Your task to perform on an android device: open sync settings in chrome Image 0: 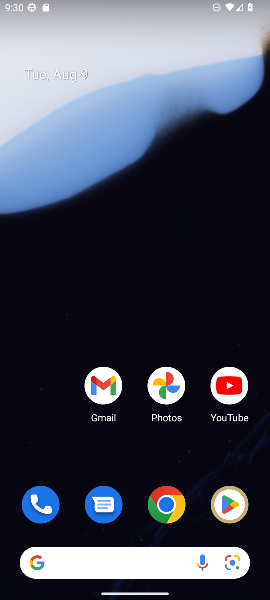
Step 0: click (167, 506)
Your task to perform on an android device: open sync settings in chrome Image 1: 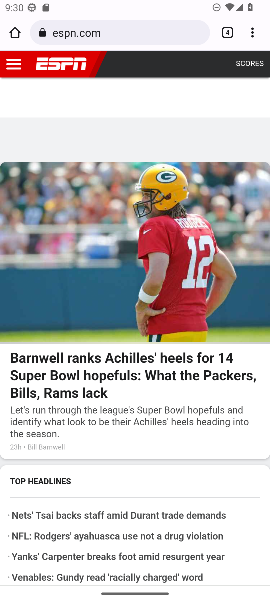
Step 1: click (252, 28)
Your task to perform on an android device: open sync settings in chrome Image 2: 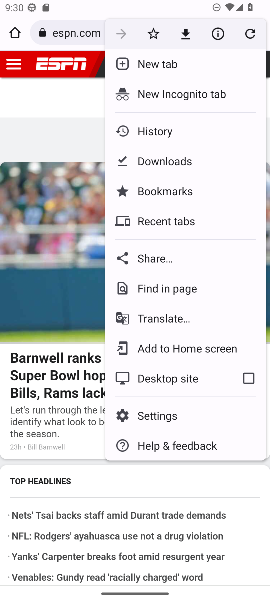
Step 2: click (157, 413)
Your task to perform on an android device: open sync settings in chrome Image 3: 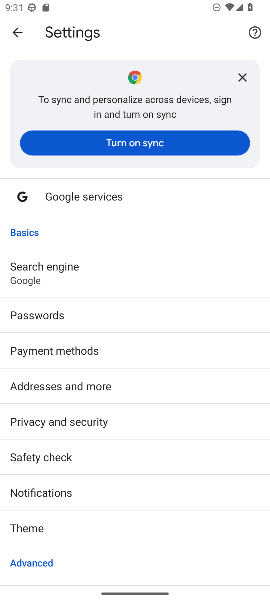
Step 3: click (126, 100)
Your task to perform on an android device: open sync settings in chrome Image 4: 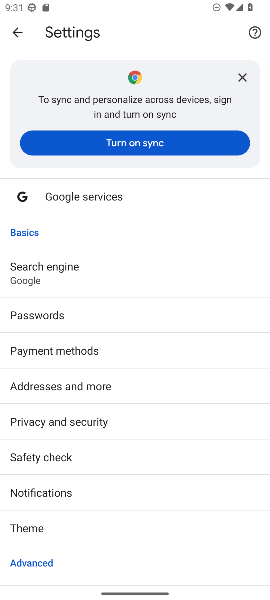
Step 4: click (139, 148)
Your task to perform on an android device: open sync settings in chrome Image 5: 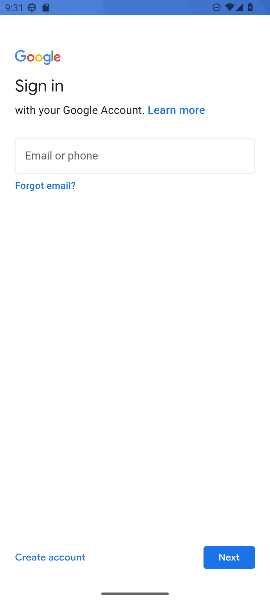
Step 5: click (225, 557)
Your task to perform on an android device: open sync settings in chrome Image 6: 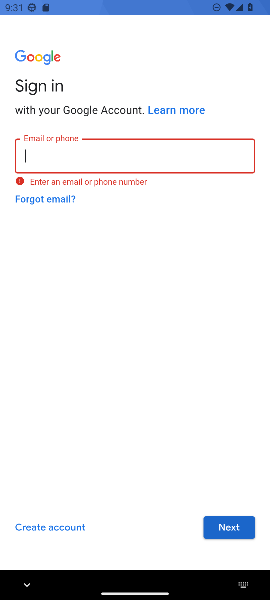
Step 6: task complete